Your task to perform on an android device: turn vacation reply on in the gmail app Image 0: 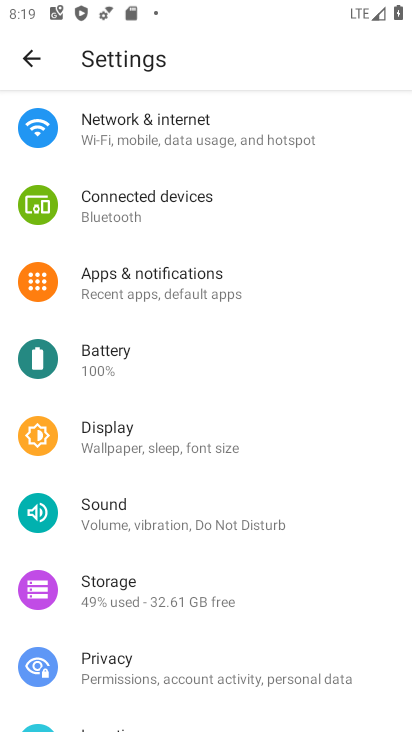
Step 0: press back button
Your task to perform on an android device: turn vacation reply on in the gmail app Image 1: 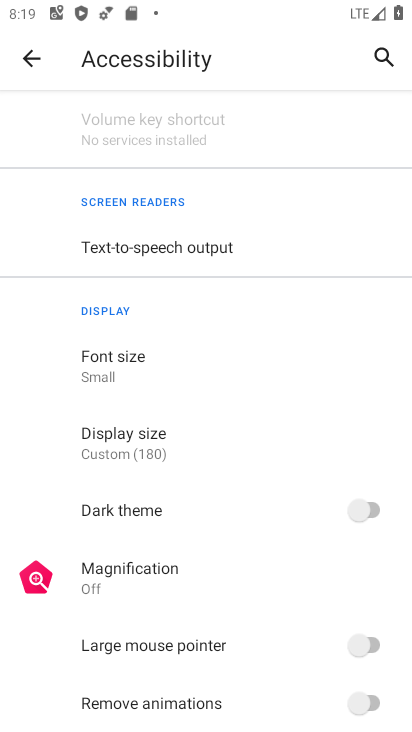
Step 1: press back button
Your task to perform on an android device: turn vacation reply on in the gmail app Image 2: 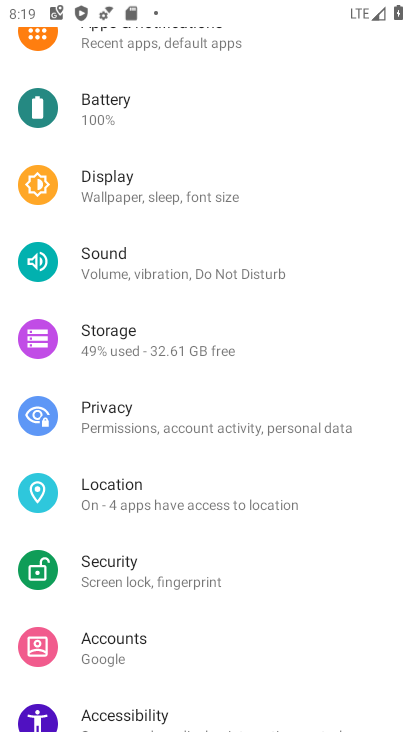
Step 2: press back button
Your task to perform on an android device: turn vacation reply on in the gmail app Image 3: 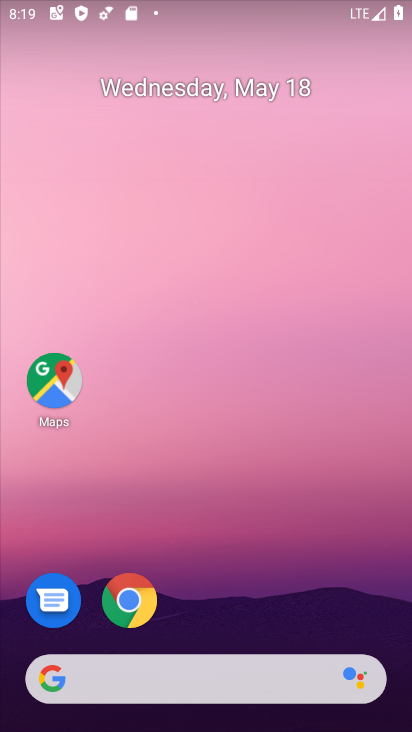
Step 3: drag from (213, 623) to (291, 133)
Your task to perform on an android device: turn vacation reply on in the gmail app Image 4: 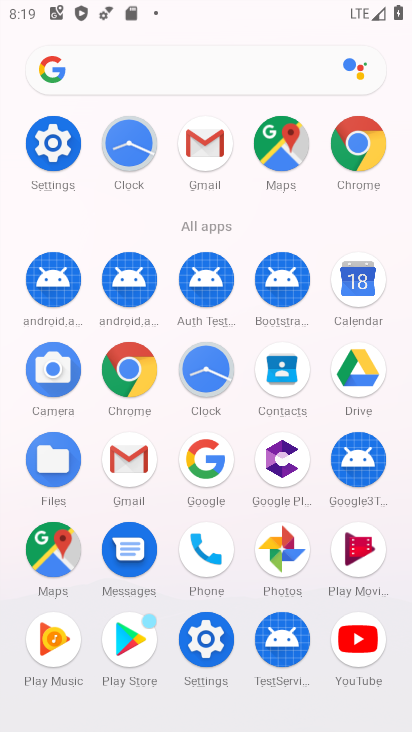
Step 4: click (198, 144)
Your task to perform on an android device: turn vacation reply on in the gmail app Image 5: 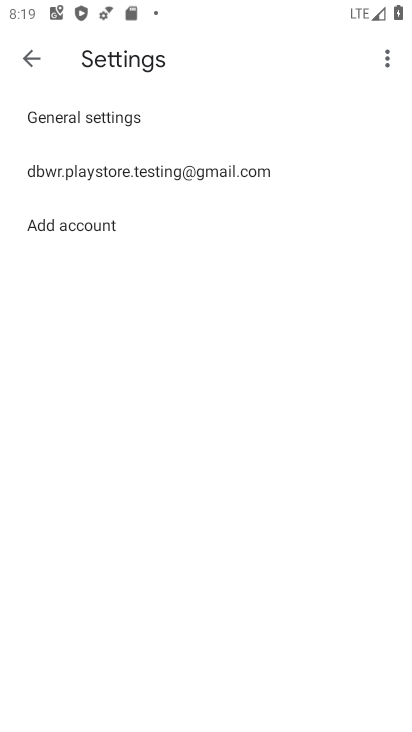
Step 5: click (83, 168)
Your task to perform on an android device: turn vacation reply on in the gmail app Image 6: 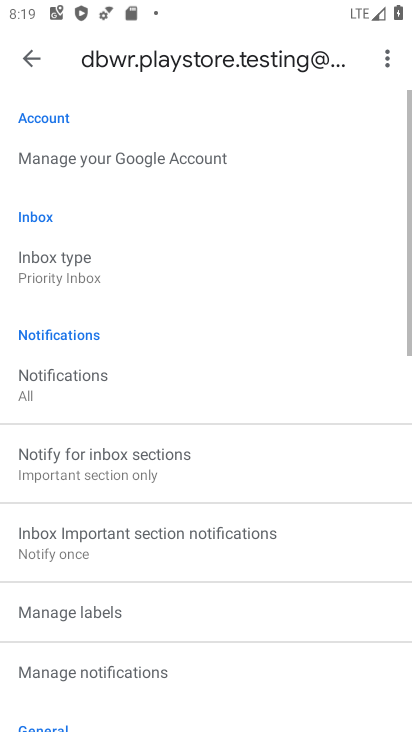
Step 6: drag from (126, 662) to (260, 154)
Your task to perform on an android device: turn vacation reply on in the gmail app Image 7: 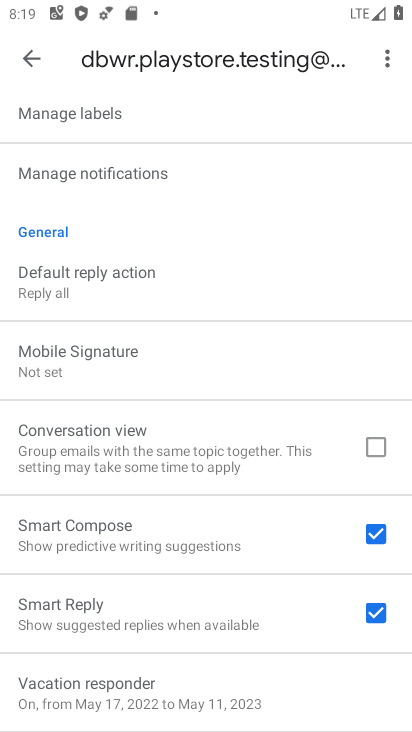
Step 7: click (155, 685)
Your task to perform on an android device: turn vacation reply on in the gmail app Image 8: 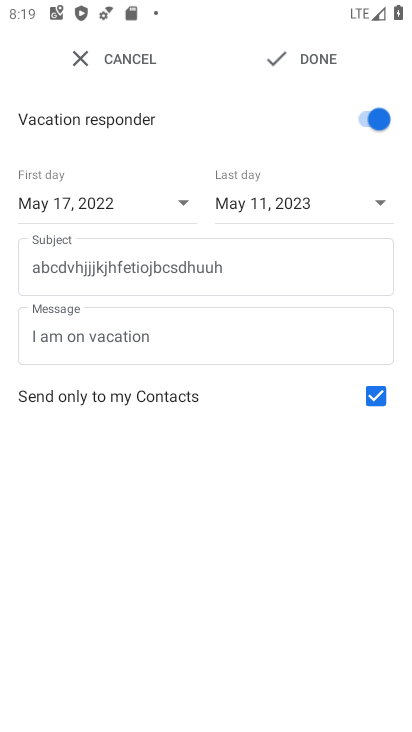
Step 8: task complete